Your task to perform on an android device: add a contact Image 0: 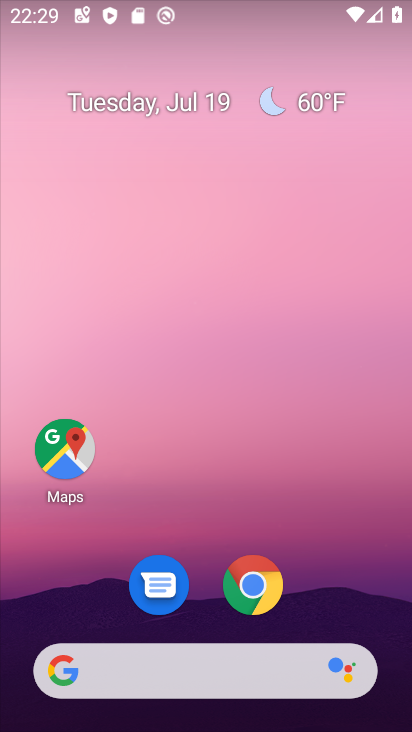
Step 0: drag from (335, 507) to (346, 40)
Your task to perform on an android device: add a contact Image 1: 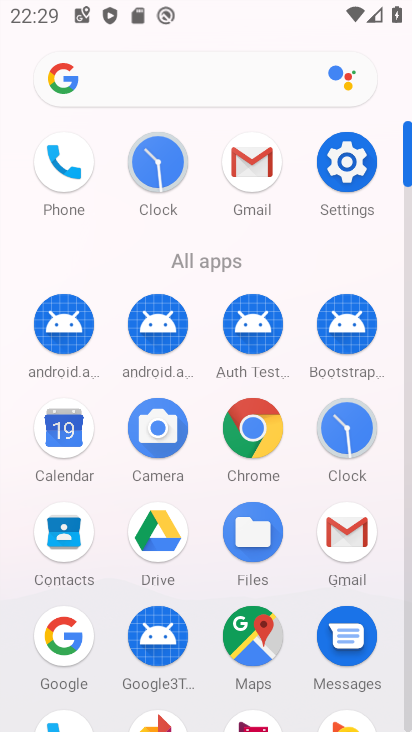
Step 1: click (58, 517)
Your task to perform on an android device: add a contact Image 2: 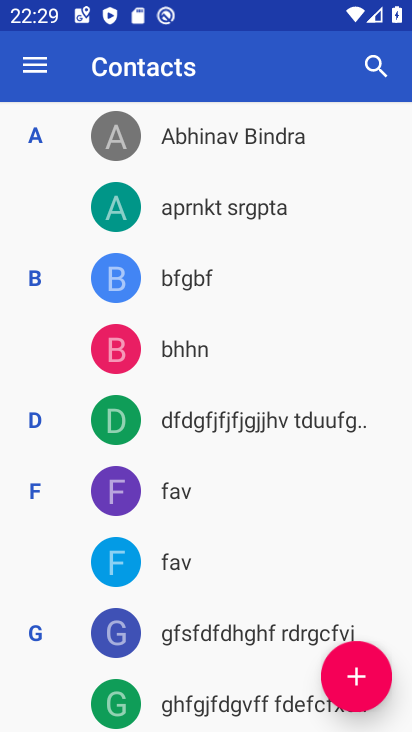
Step 2: click (360, 679)
Your task to perform on an android device: add a contact Image 3: 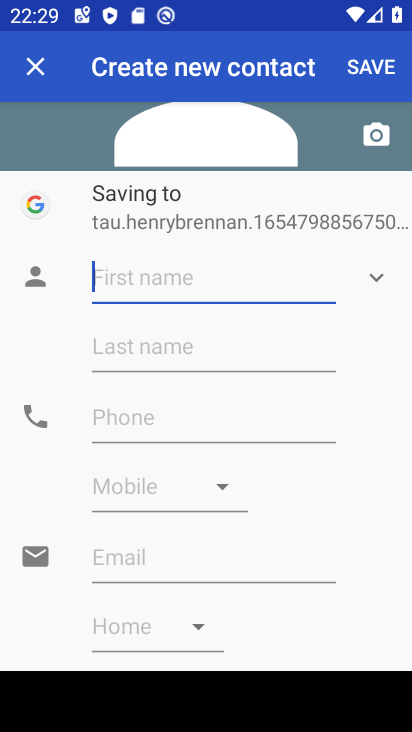
Step 3: type "Om"
Your task to perform on an android device: add a contact Image 4: 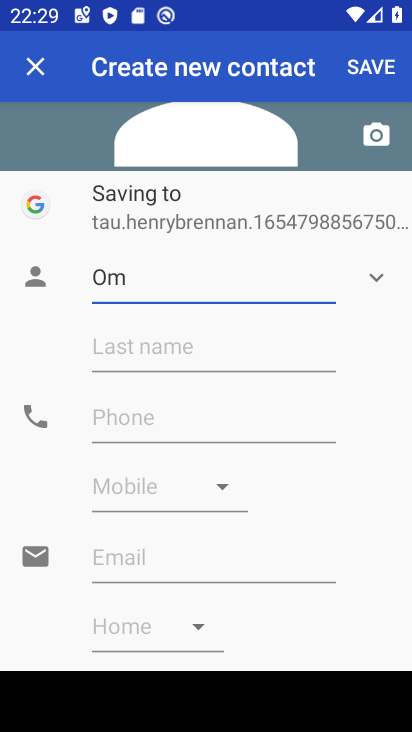
Step 4: click (162, 423)
Your task to perform on an android device: add a contact Image 5: 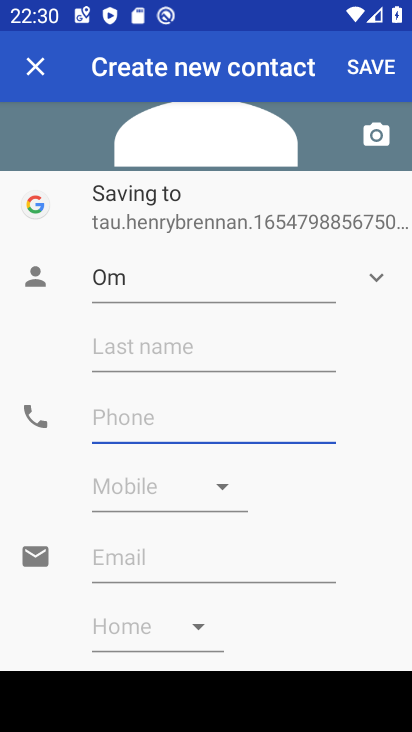
Step 5: type "011223344556677"
Your task to perform on an android device: add a contact Image 6: 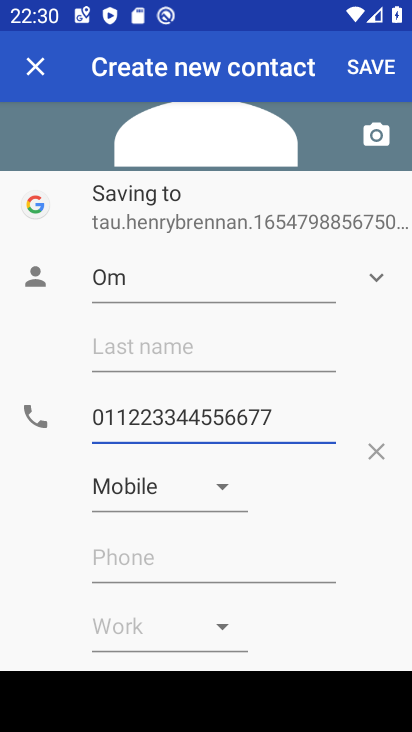
Step 6: click (367, 64)
Your task to perform on an android device: add a contact Image 7: 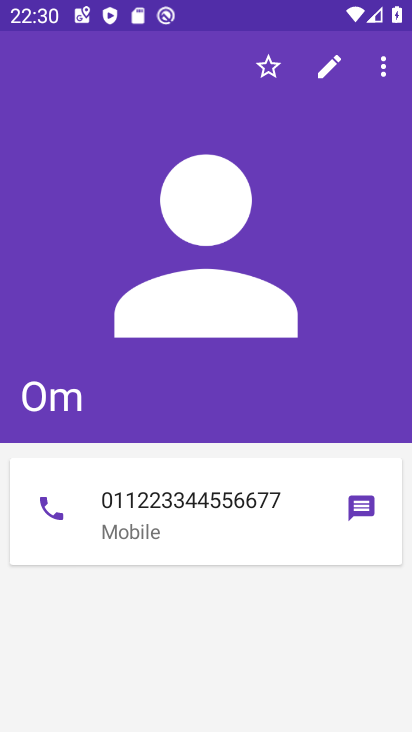
Step 7: task complete